Your task to perform on an android device: visit the assistant section in the google photos Image 0: 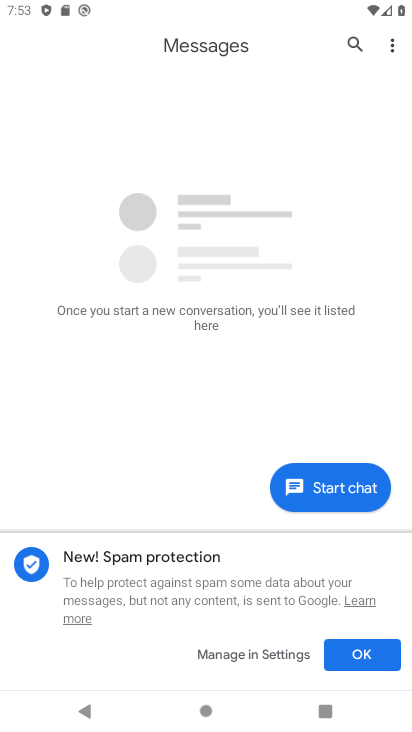
Step 0: press home button
Your task to perform on an android device: visit the assistant section in the google photos Image 1: 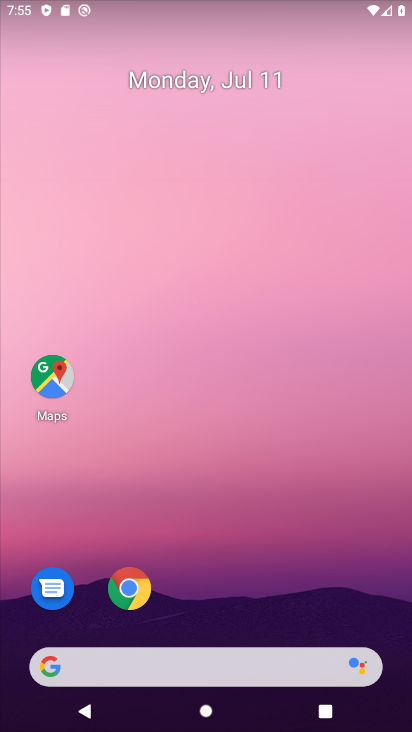
Step 1: drag from (149, 718) to (311, 9)
Your task to perform on an android device: visit the assistant section in the google photos Image 2: 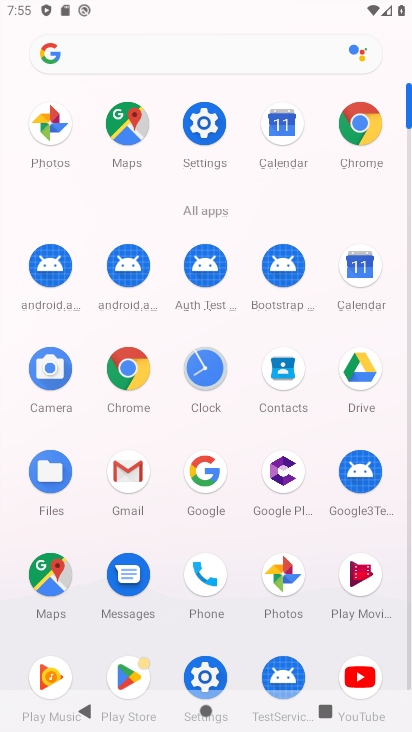
Step 2: click (48, 125)
Your task to perform on an android device: visit the assistant section in the google photos Image 3: 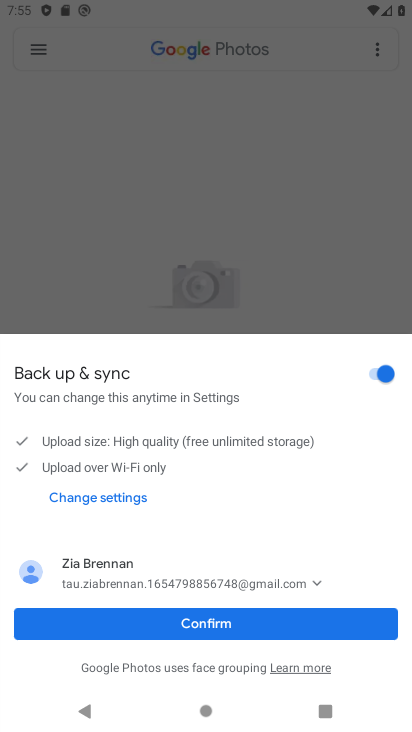
Step 3: click (216, 629)
Your task to perform on an android device: visit the assistant section in the google photos Image 4: 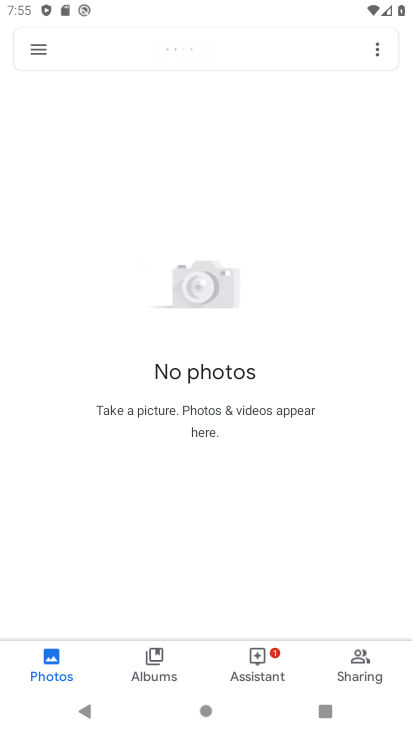
Step 4: click (263, 659)
Your task to perform on an android device: visit the assistant section in the google photos Image 5: 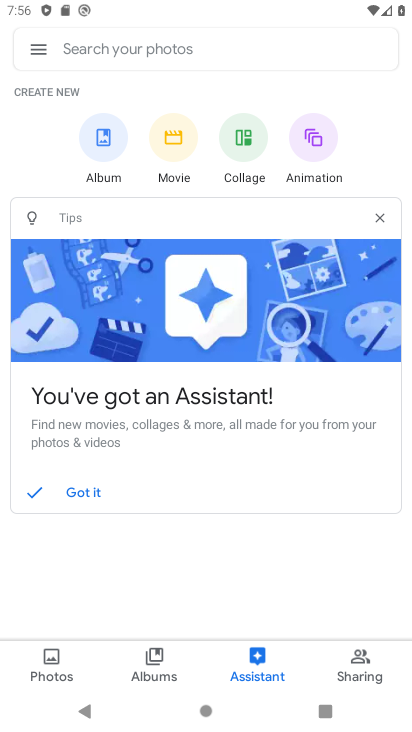
Step 5: task complete